Your task to perform on an android device: Search for vegetarian restaurants on Maps Image 0: 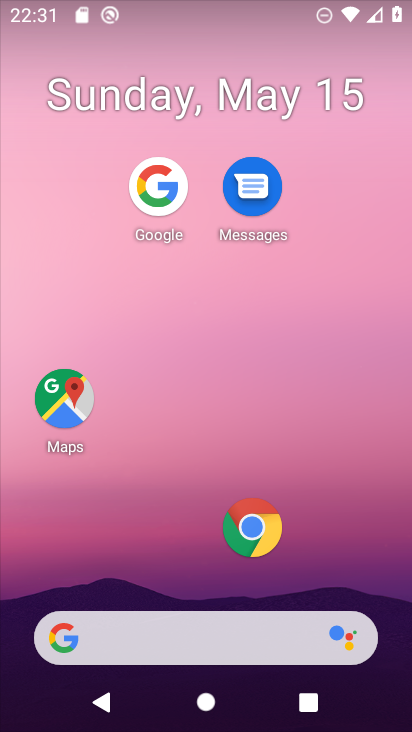
Step 0: press home button
Your task to perform on an android device: Search for vegetarian restaurants on Maps Image 1: 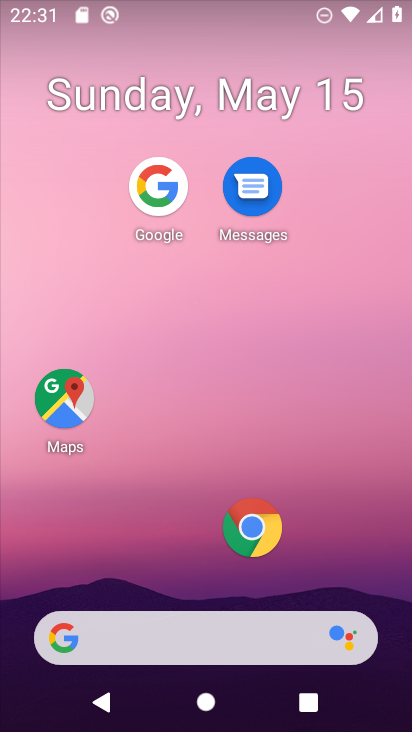
Step 1: click (64, 411)
Your task to perform on an android device: Search for vegetarian restaurants on Maps Image 2: 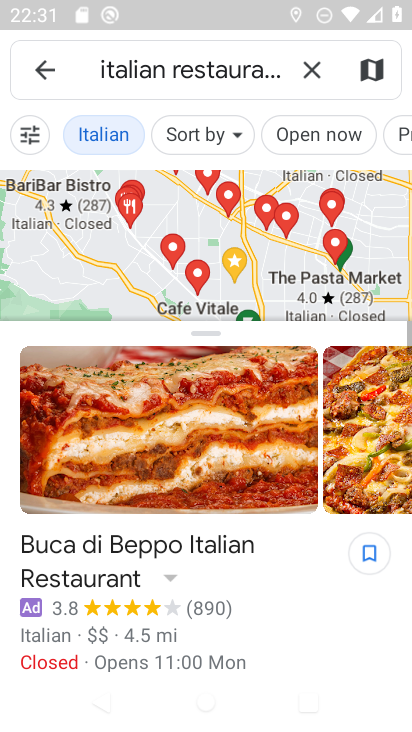
Step 2: click (312, 71)
Your task to perform on an android device: Search for vegetarian restaurants on Maps Image 3: 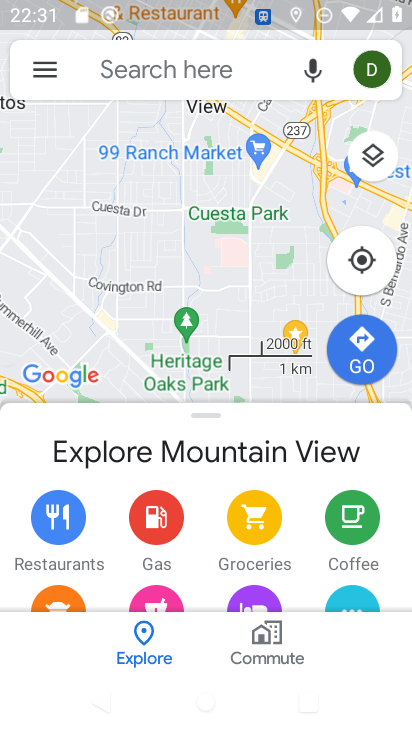
Step 3: click (204, 61)
Your task to perform on an android device: Search for vegetarian restaurants on Maps Image 4: 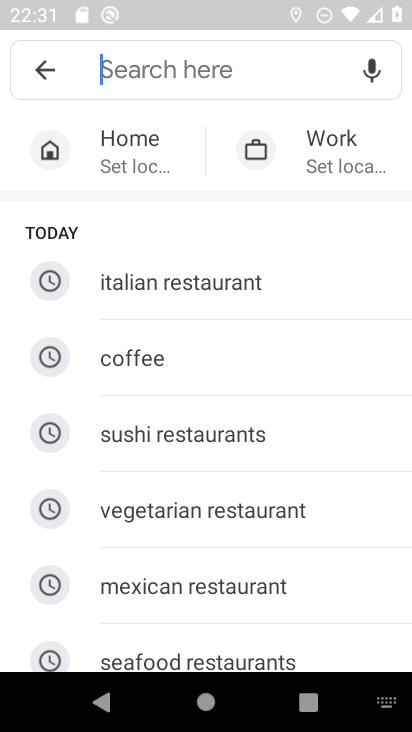
Step 4: click (168, 509)
Your task to perform on an android device: Search for vegetarian restaurants on Maps Image 5: 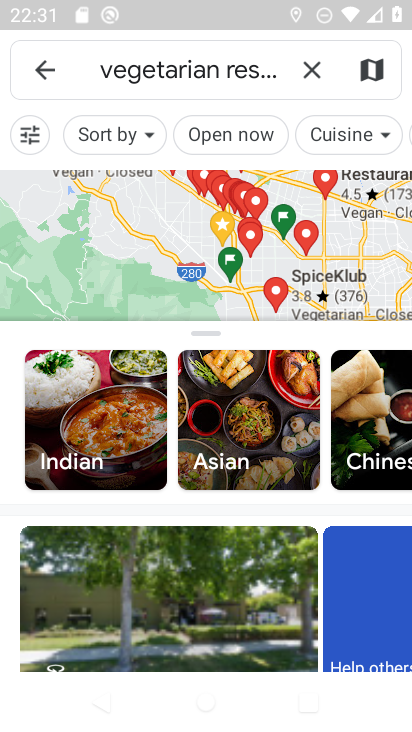
Step 5: task complete